Your task to perform on an android device: allow notifications from all sites in the chrome app Image 0: 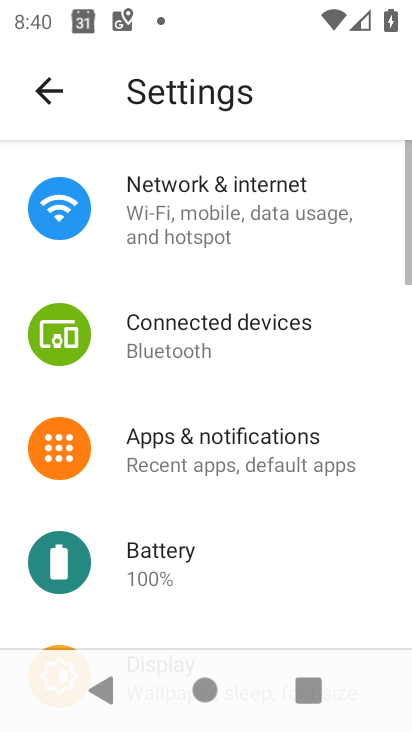
Step 0: press home button
Your task to perform on an android device: allow notifications from all sites in the chrome app Image 1: 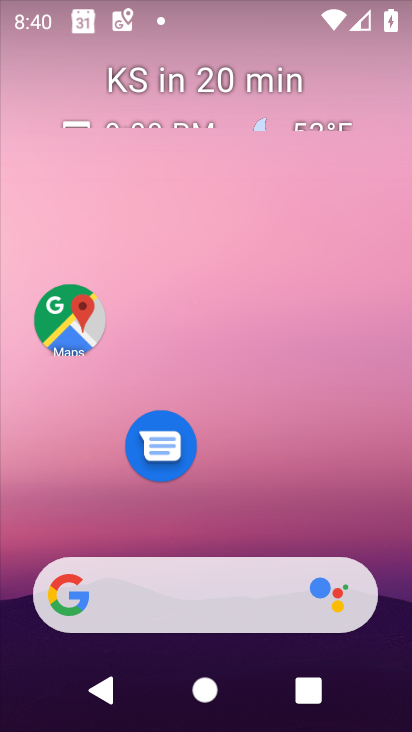
Step 1: drag from (207, 543) to (296, 4)
Your task to perform on an android device: allow notifications from all sites in the chrome app Image 2: 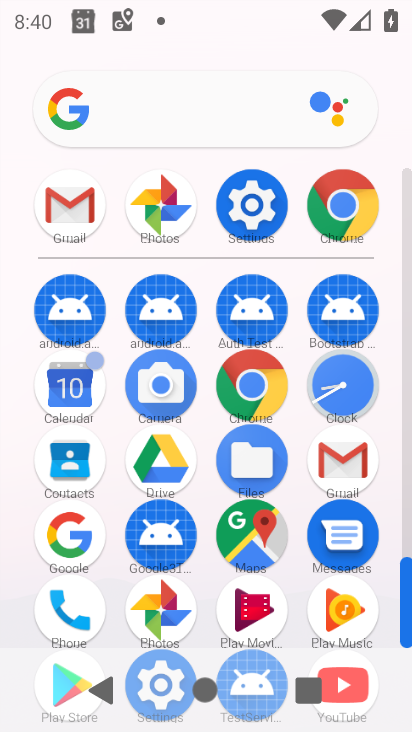
Step 2: click (343, 198)
Your task to perform on an android device: allow notifications from all sites in the chrome app Image 3: 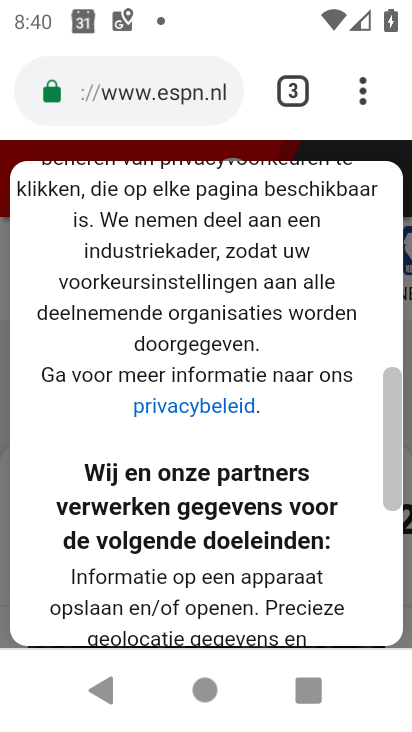
Step 3: click (369, 92)
Your task to perform on an android device: allow notifications from all sites in the chrome app Image 4: 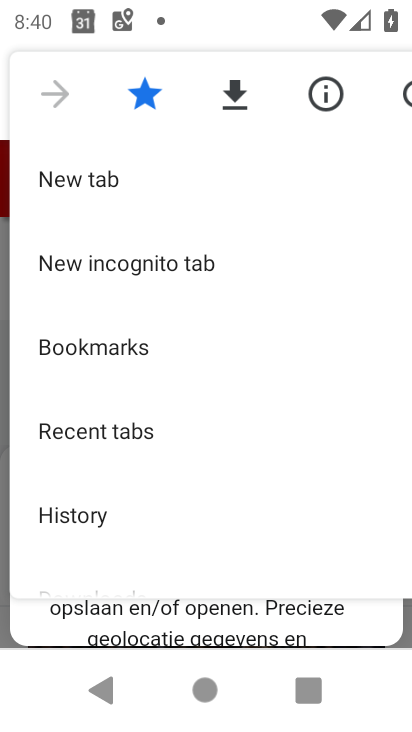
Step 4: drag from (214, 520) to (160, 104)
Your task to perform on an android device: allow notifications from all sites in the chrome app Image 5: 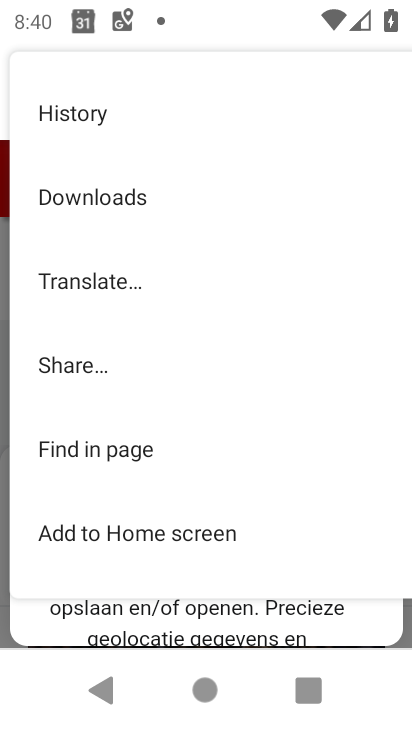
Step 5: drag from (152, 506) to (148, 120)
Your task to perform on an android device: allow notifications from all sites in the chrome app Image 6: 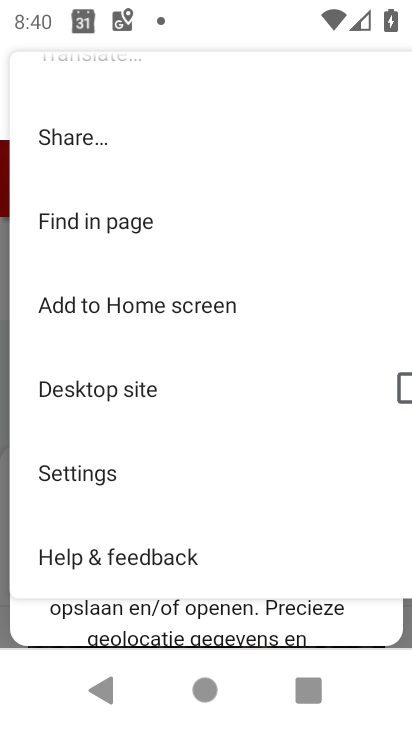
Step 6: click (83, 461)
Your task to perform on an android device: allow notifications from all sites in the chrome app Image 7: 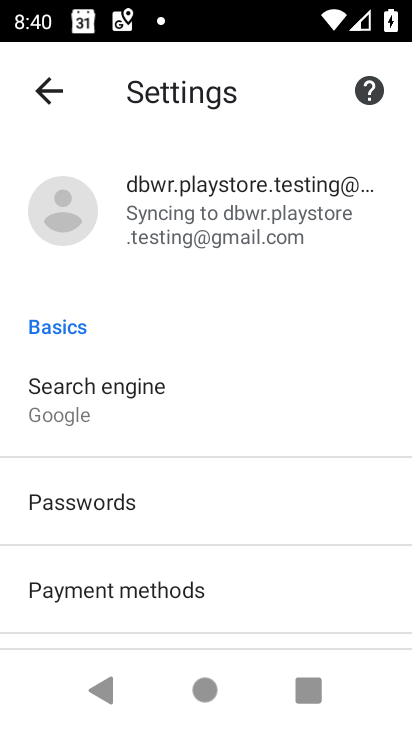
Step 7: drag from (80, 562) to (32, 85)
Your task to perform on an android device: allow notifications from all sites in the chrome app Image 8: 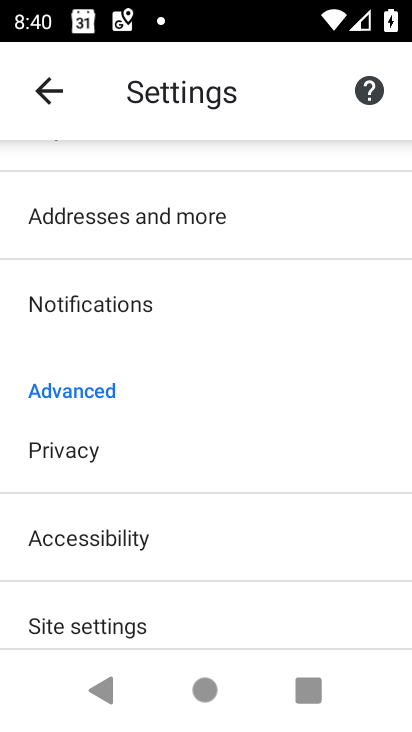
Step 8: drag from (145, 558) to (131, 319)
Your task to perform on an android device: allow notifications from all sites in the chrome app Image 9: 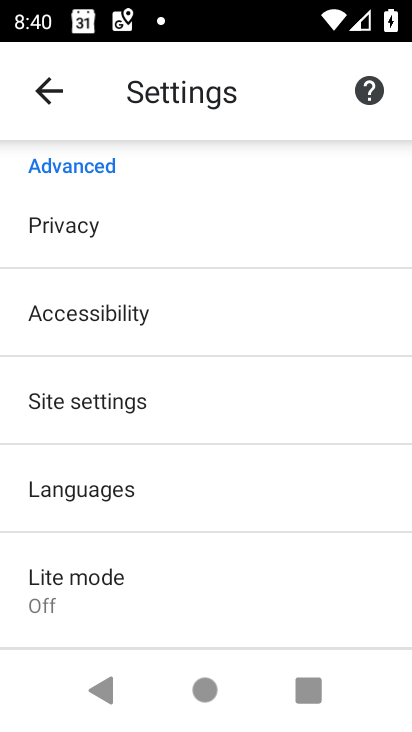
Step 9: click (117, 402)
Your task to perform on an android device: allow notifications from all sites in the chrome app Image 10: 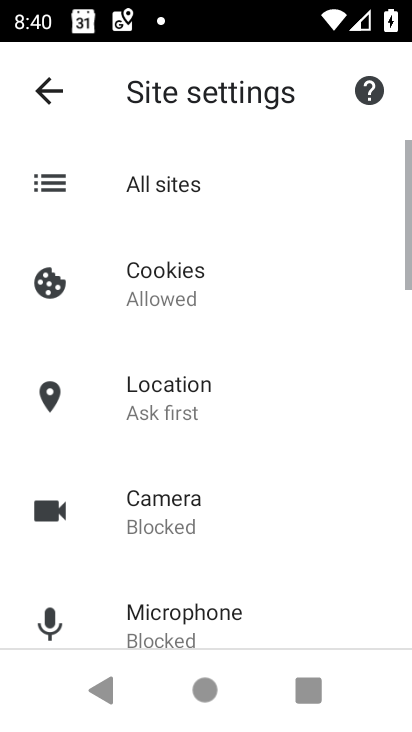
Step 10: drag from (185, 598) to (164, 153)
Your task to perform on an android device: allow notifications from all sites in the chrome app Image 11: 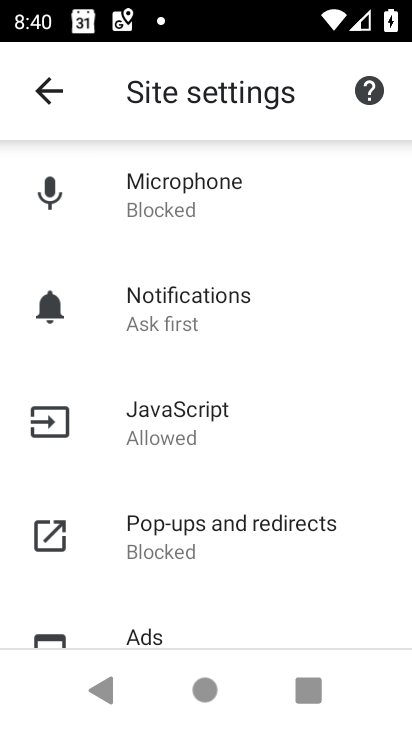
Step 11: click (192, 303)
Your task to perform on an android device: allow notifications from all sites in the chrome app Image 12: 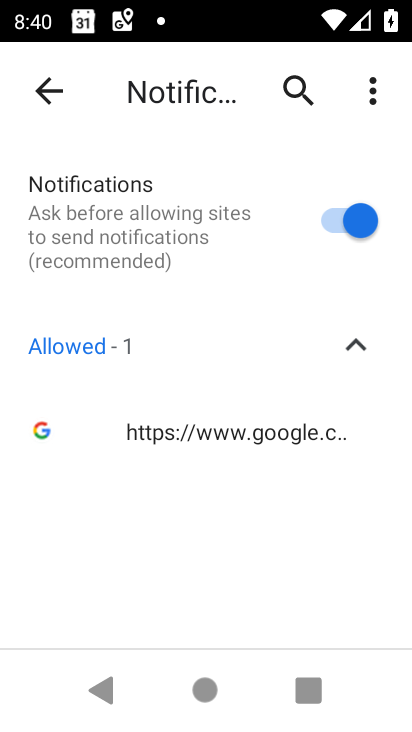
Step 12: task complete